Your task to perform on an android device: turn on translation in the chrome app Image 0: 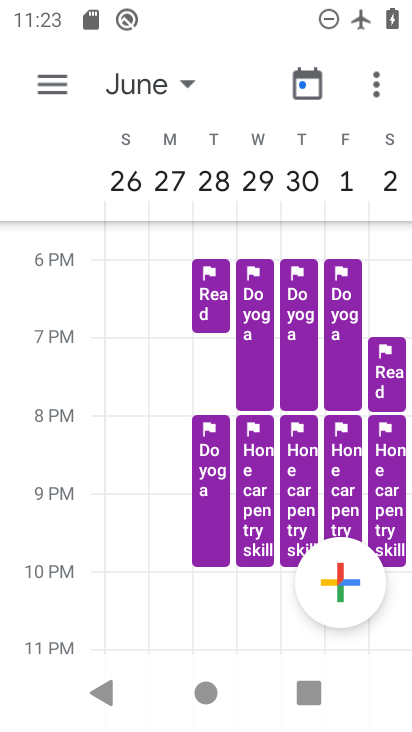
Step 0: press home button
Your task to perform on an android device: turn on translation in the chrome app Image 1: 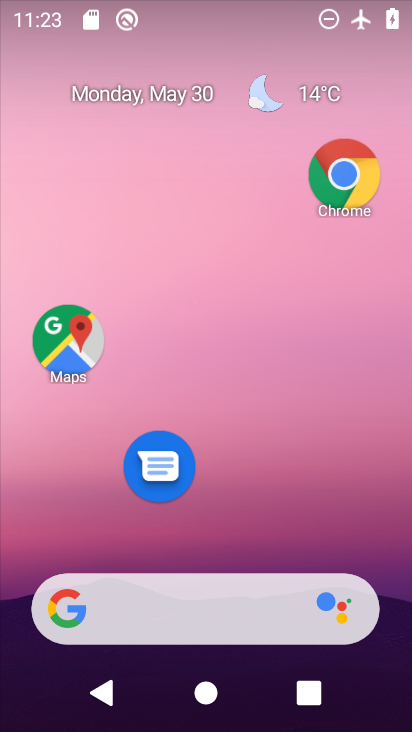
Step 1: click (347, 179)
Your task to perform on an android device: turn on translation in the chrome app Image 2: 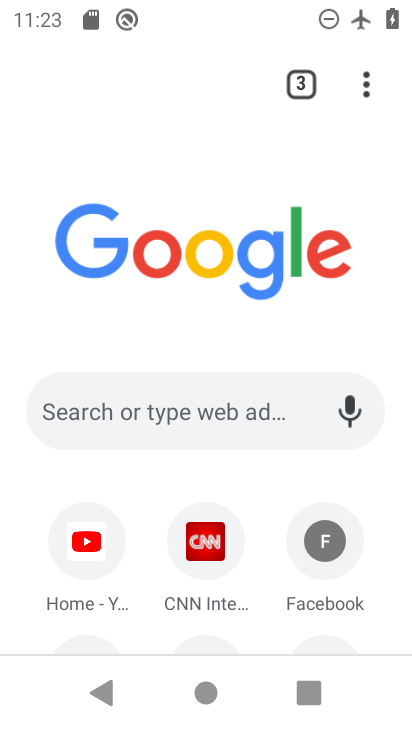
Step 2: click (360, 83)
Your task to perform on an android device: turn on translation in the chrome app Image 3: 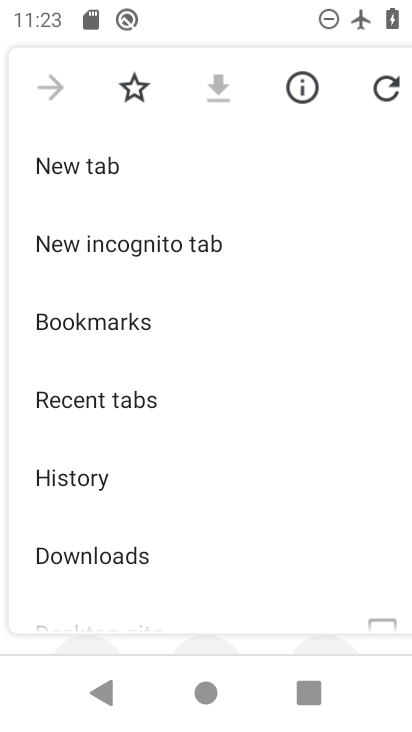
Step 3: drag from (181, 529) to (186, 209)
Your task to perform on an android device: turn on translation in the chrome app Image 4: 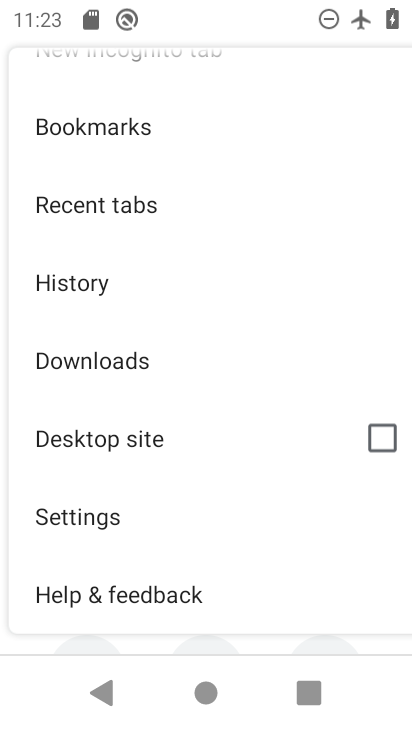
Step 4: drag from (161, 546) to (175, 179)
Your task to perform on an android device: turn on translation in the chrome app Image 5: 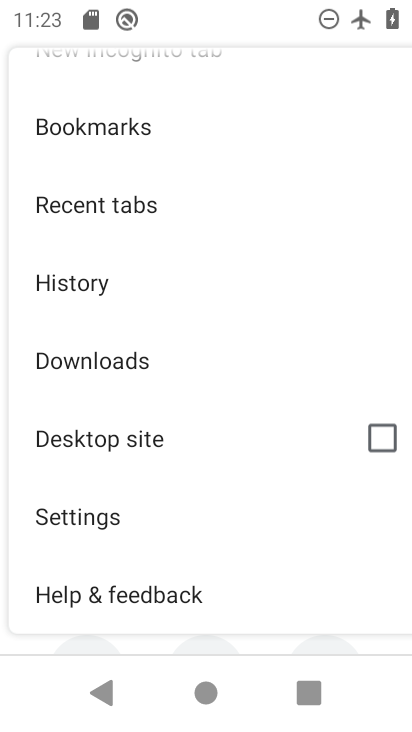
Step 5: click (79, 514)
Your task to perform on an android device: turn on translation in the chrome app Image 6: 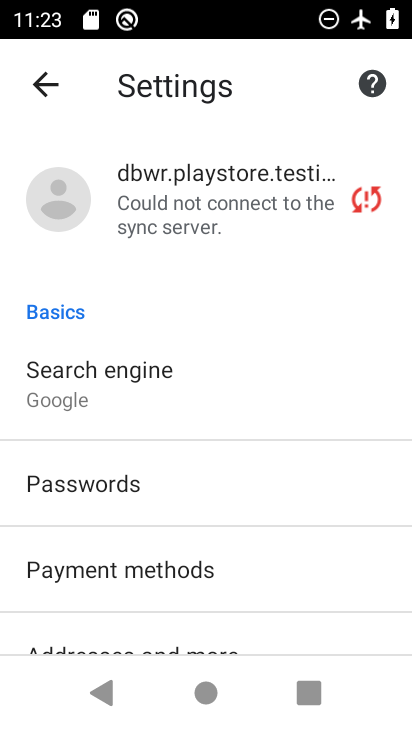
Step 6: drag from (252, 597) to (216, 176)
Your task to perform on an android device: turn on translation in the chrome app Image 7: 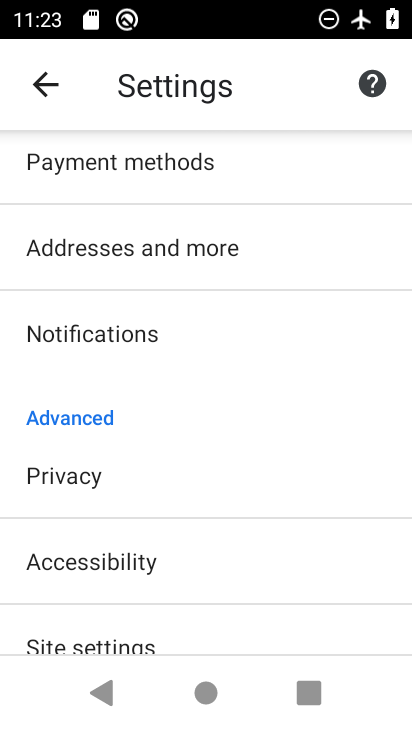
Step 7: drag from (131, 550) to (151, 215)
Your task to perform on an android device: turn on translation in the chrome app Image 8: 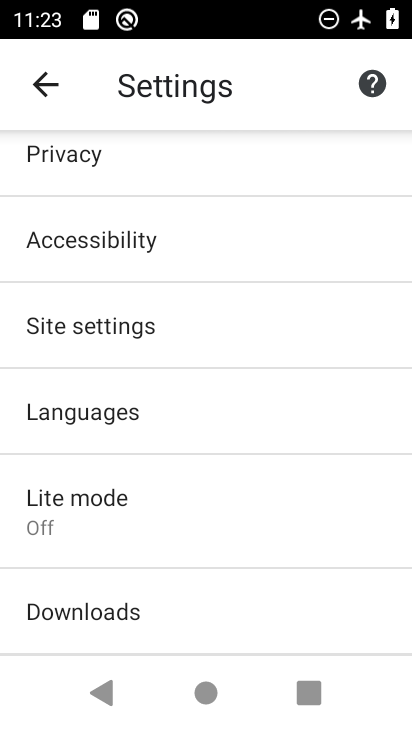
Step 8: click (83, 419)
Your task to perform on an android device: turn on translation in the chrome app Image 9: 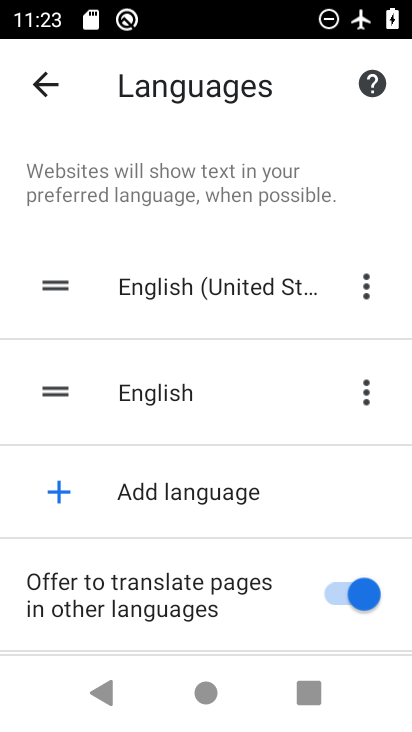
Step 9: task complete